Your task to perform on an android device: Open the calendar app, open the side menu, and click the "Day" option Image 0: 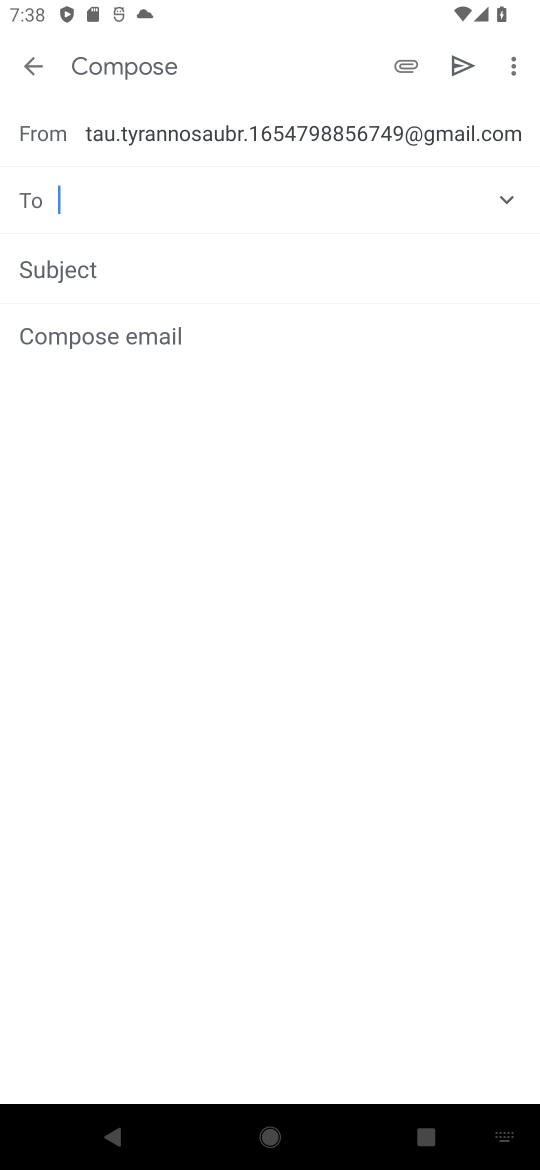
Step 0: press home button
Your task to perform on an android device: Open the calendar app, open the side menu, and click the "Day" option Image 1: 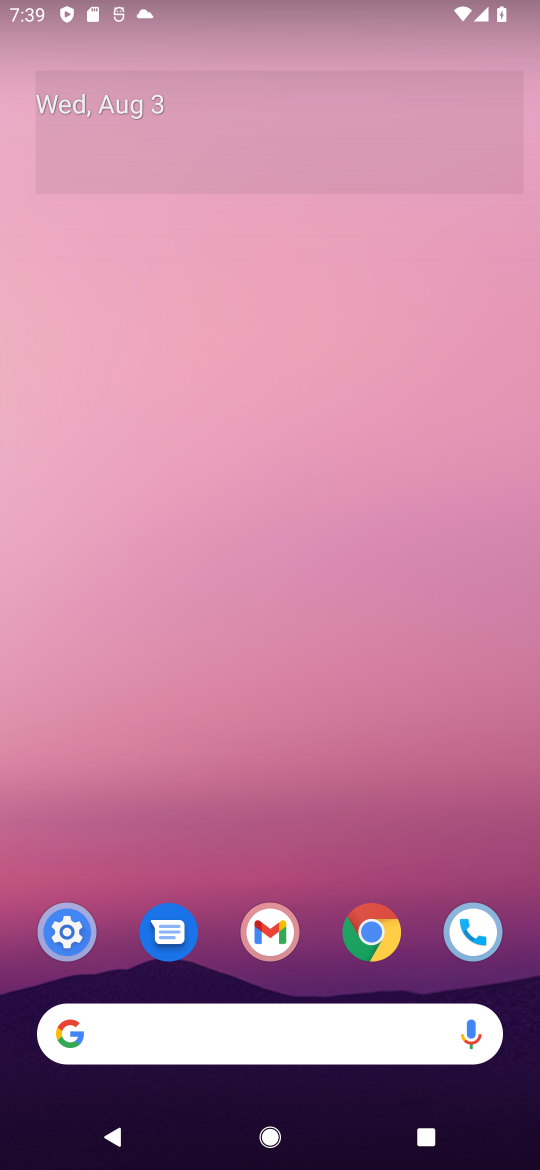
Step 1: drag from (383, 838) to (523, 216)
Your task to perform on an android device: Open the calendar app, open the side menu, and click the "Day" option Image 2: 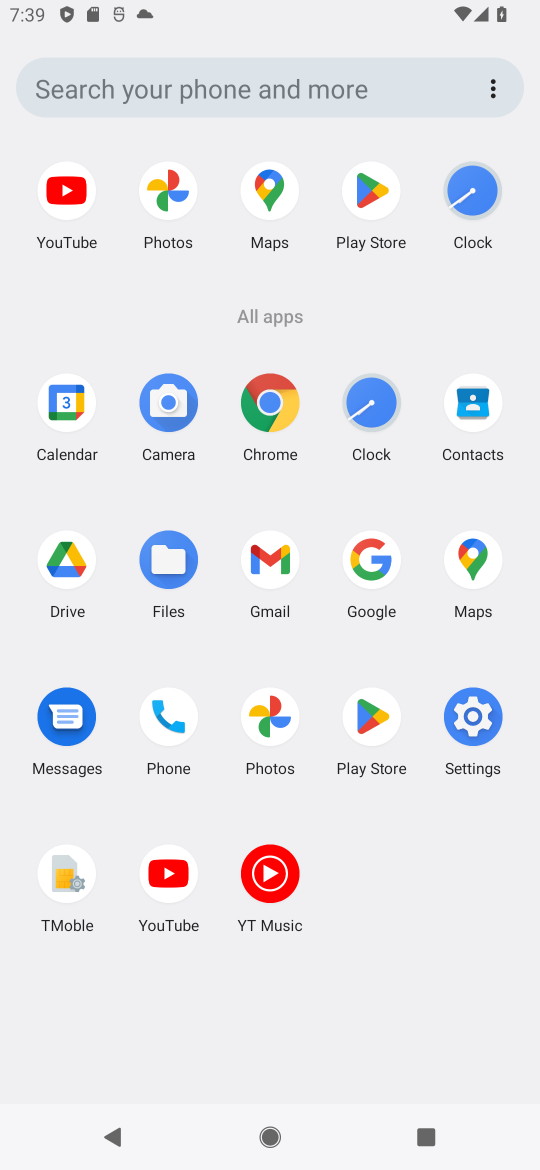
Step 2: click (38, 427)
Your task to perform on an android device: Open the calendar app, open the side menu, and click the "Day" option Image 3: 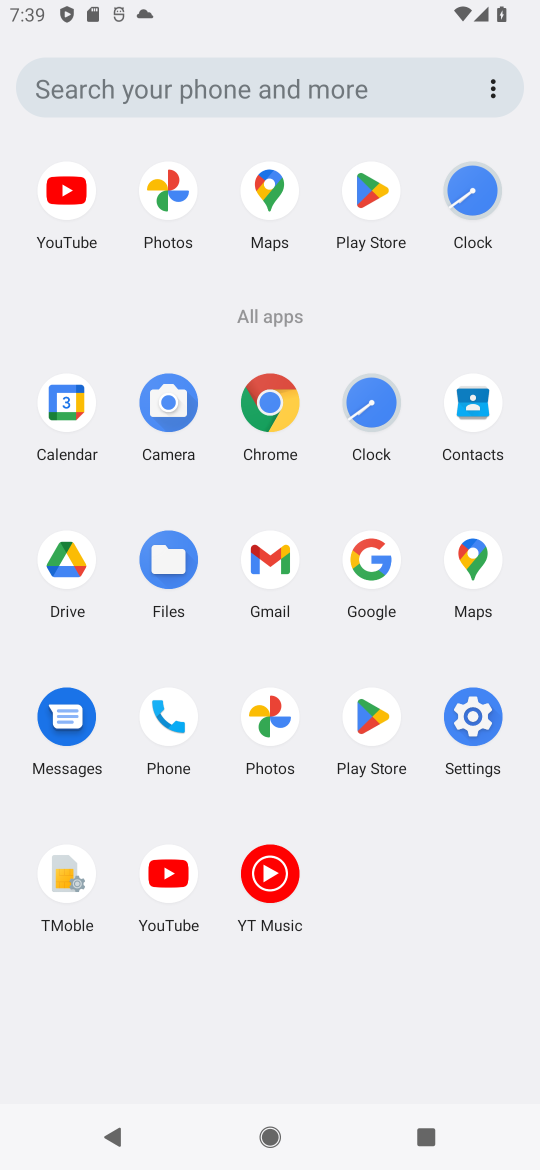
Step 3: click (38, 427)
Your task to perform on an android device: Open the calendar app, open the side menu, and click the "Day" option Image 4: 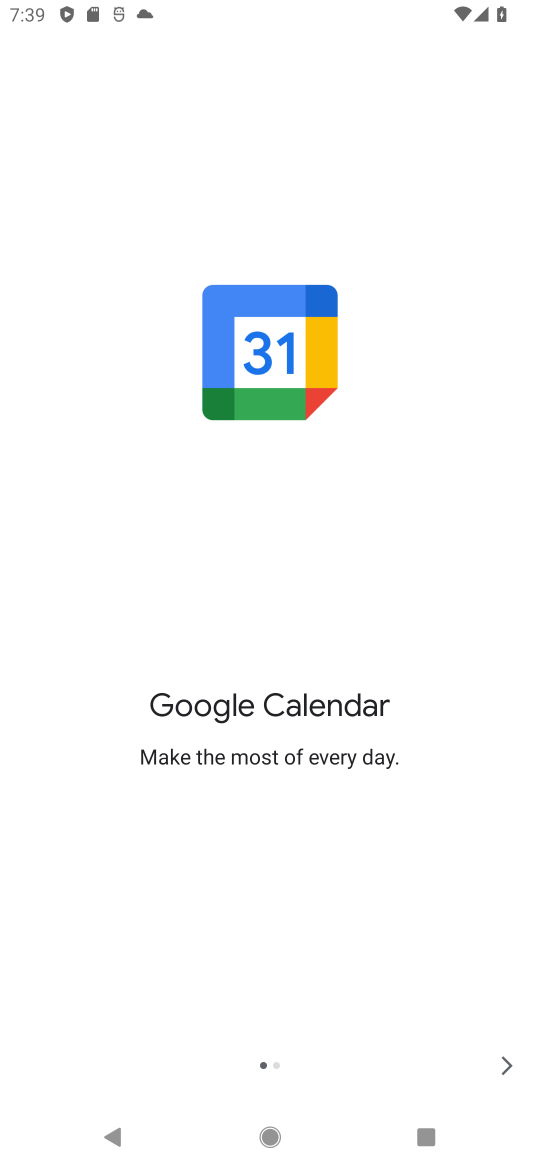
Step 4: click (505, 1071)
Your task to perform on an android device: Open the calendar app, open the side menu, and click the "Day" option Image 5: 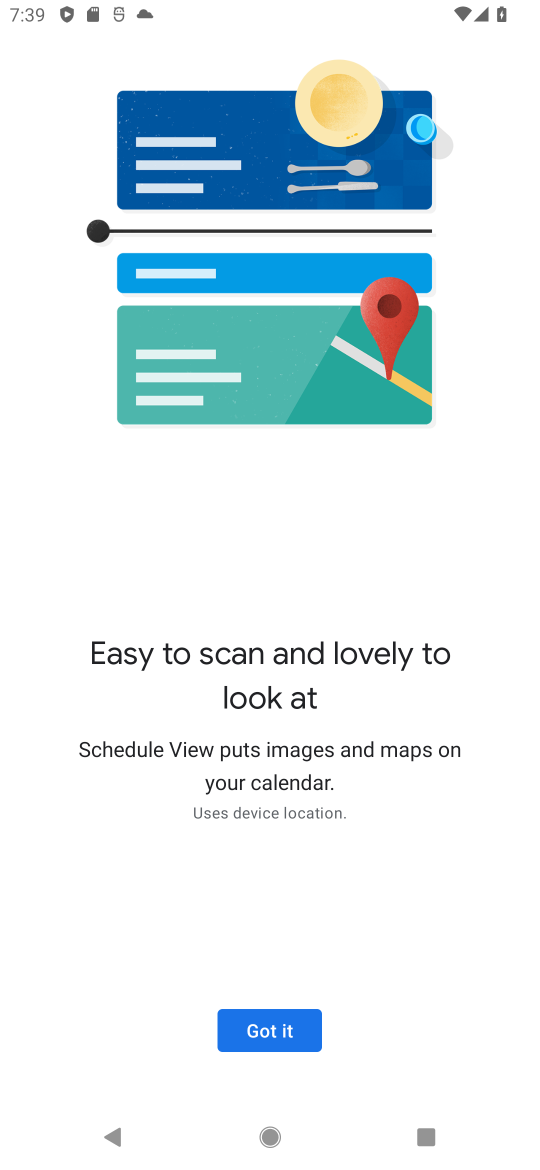
Step 5: click (294, 1038)
Your task to perform on an android device: Open the calendar app, open the side menu, and click the "Day" option Image 6: 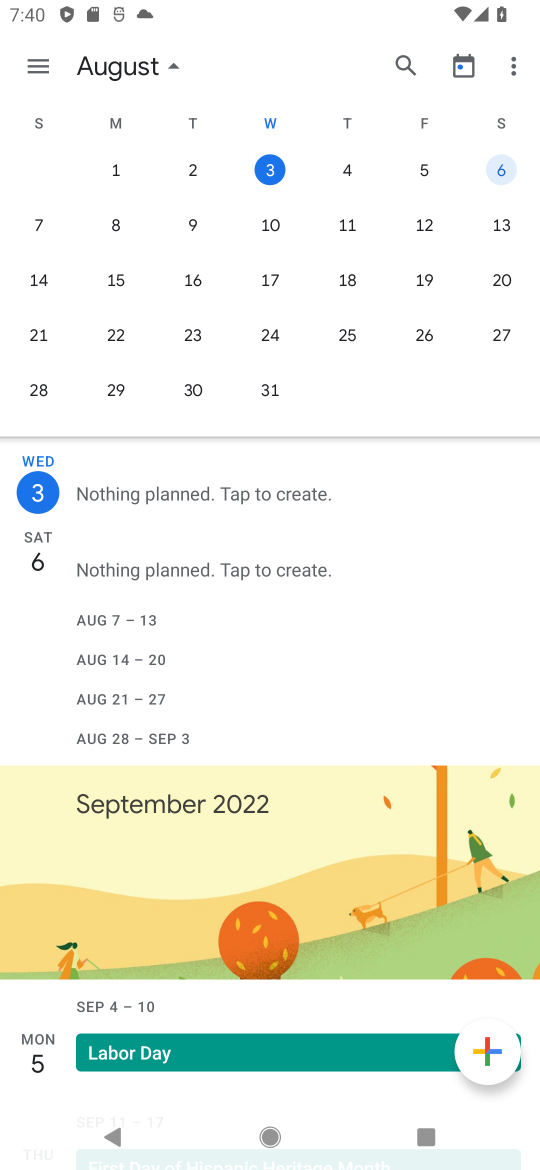
Step 6: click (38, 58)
Your task to perform on an android device: Open the calendar app, open the side menu, and click the "Day" option Image 7: 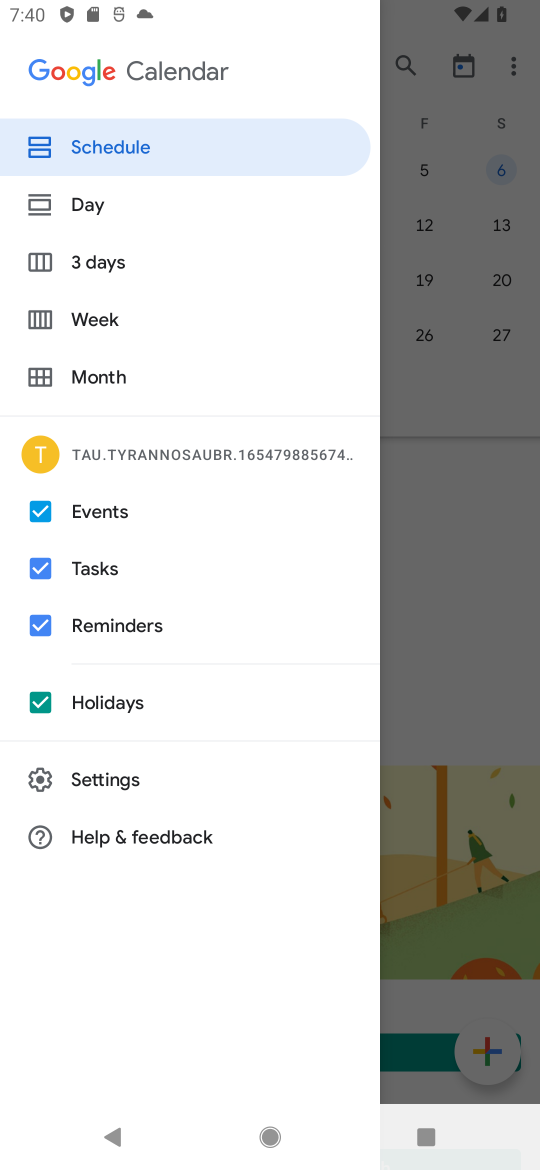
Step 7: click (49, 223)
Your task to perform on an android device: Open the calendar app, open the side menu, and click the "Day" option Image 8: 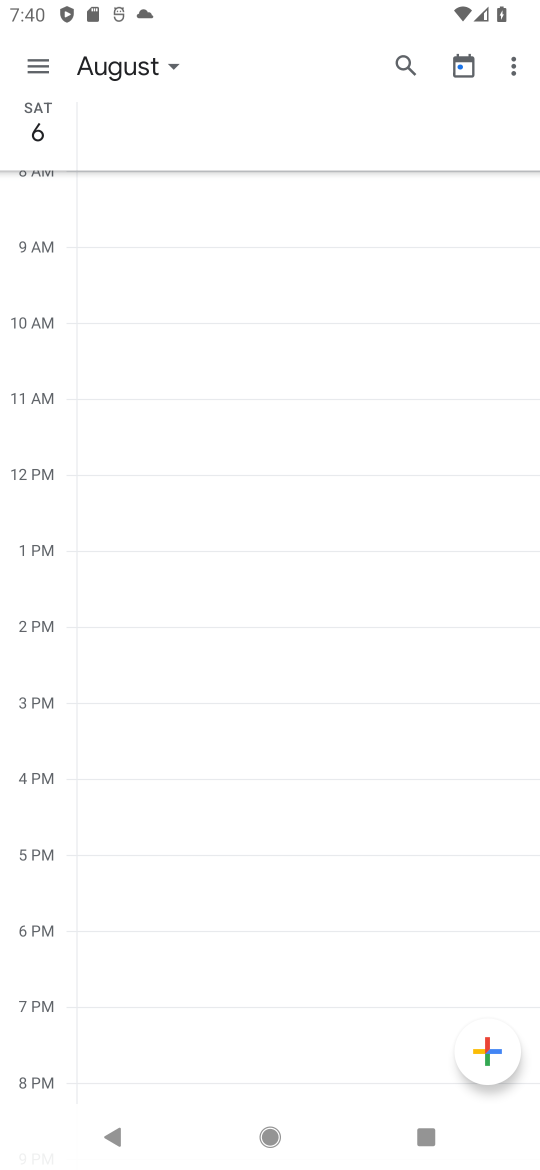
Step 8: task complete